Your task to perform on an android device: turn off javascript in the chrome app Image 0: 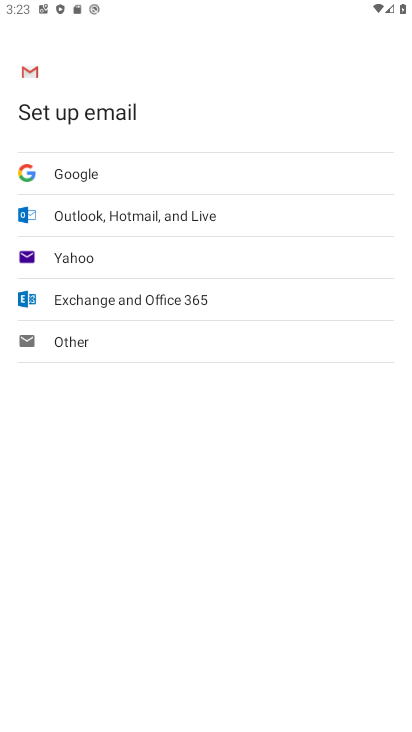
Step 0: press home button
Your task to perform on an android device: turn off javascript in the chrome app Image 1: 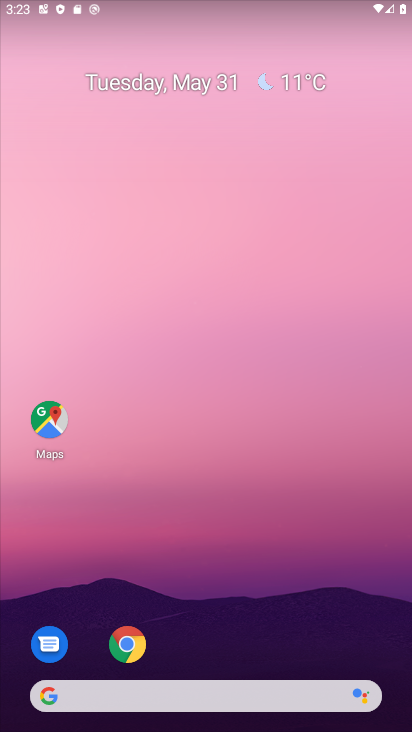
Step 1: click (134, 636)
Your task to perform on an android device: turn off javascript in the chrome app Image 2: 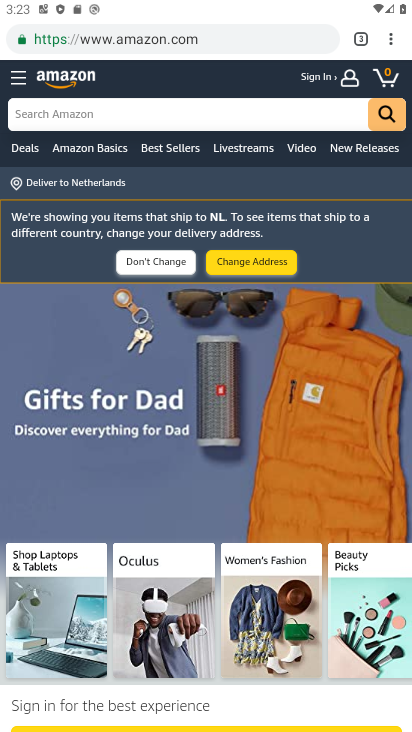
Step 2: click (393, 39)
Your task to perform on an android device: turn off javascript in the chrome app Image 3: 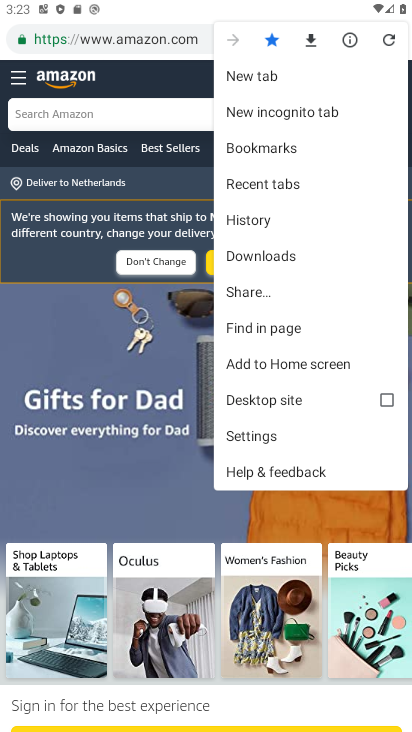
Step 3: click (276, 432)
Your task to perform on an android device: turn off javascript in the chrome app Image 4: 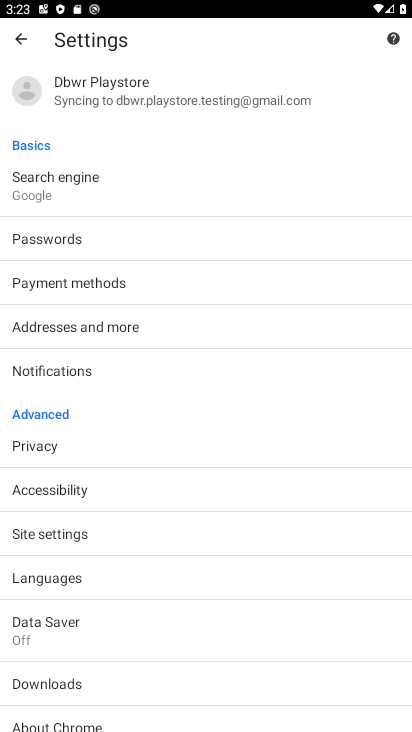
Step 4: click (23, 533)
Your task to perform on an android device: turn off javascript in the chrome app Image 5: 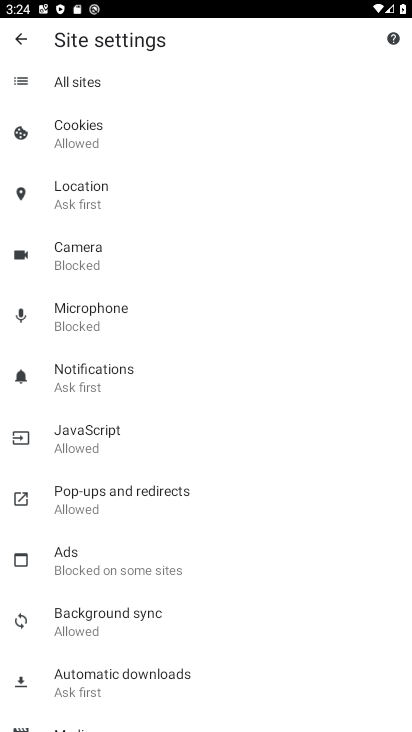
Step 5: click (135, 445)
Your task to perform on an android device: turn off javascript in the chrome app Image 6: 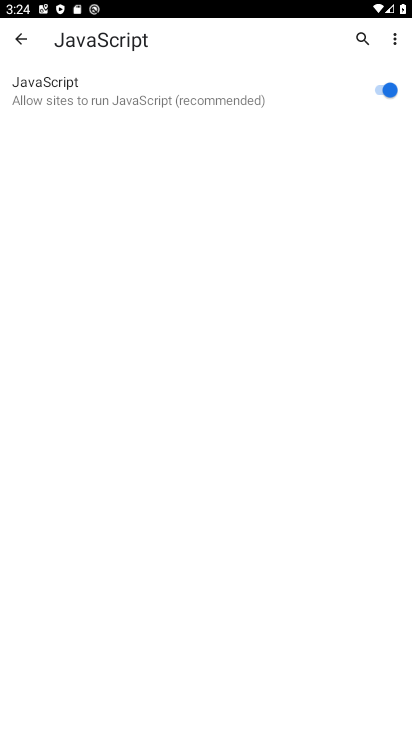
Step 6: click (401, 80)
Your task to perform on an android device: turn off javascript in the chrome app Image 7: 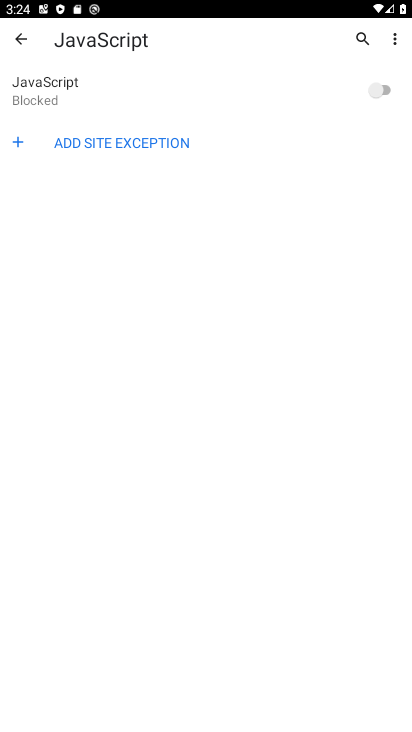
Step 7: task complete